Your task to perform on an android device: Go to network settings Image 0: 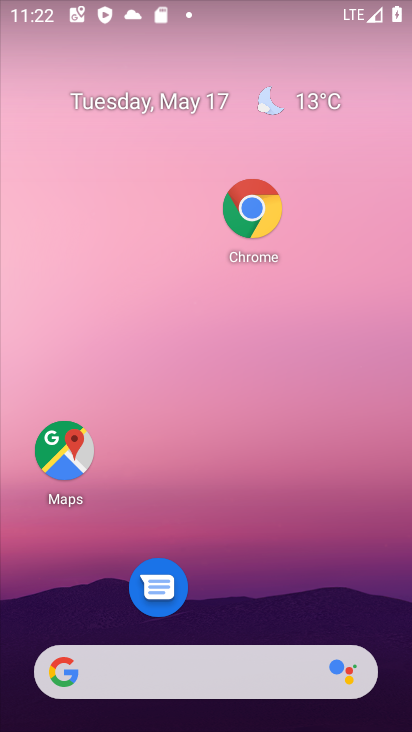
Step 0: drag from (336, 528) to (324, 152)
Your task to perform on an android device: Go to network settings Image 1: 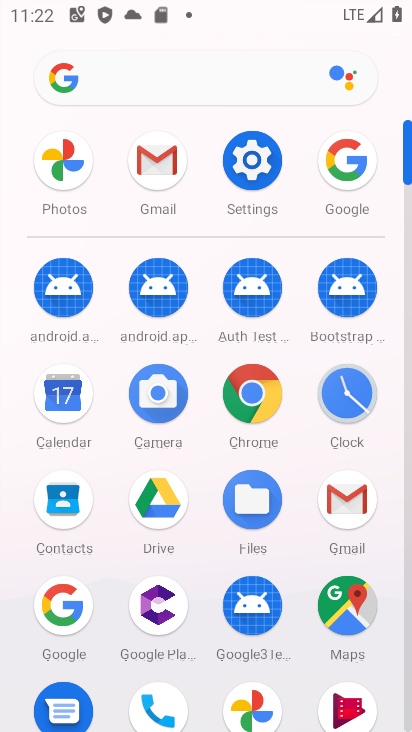
Step 1: click (262, 155)
Your task to perform on an android device: Go to network settings Image 2: 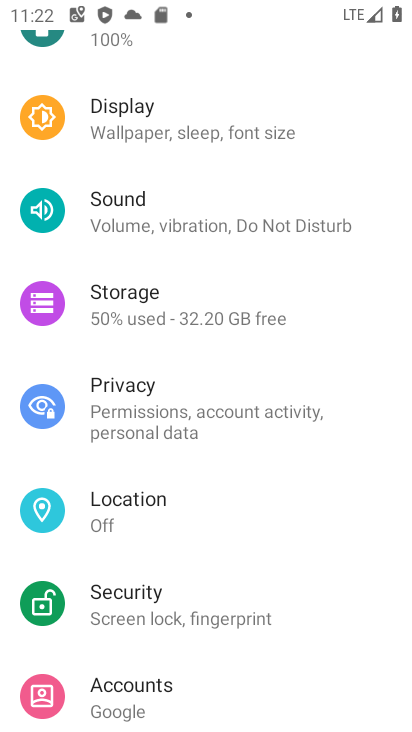
Step 2: drag from (262, 155) to (289, 571)
Your task to perform on an android device: Go to network settings Image 3: 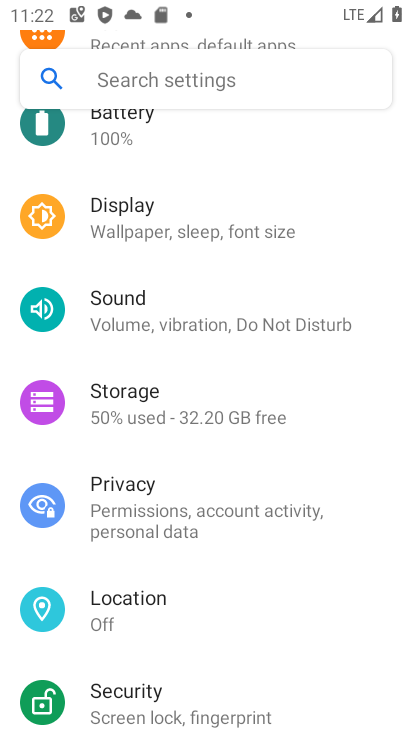
Step 3: drag from (276, 172) to (311, 610)
Your task to perform on an android device: Go to network settings Image 4: 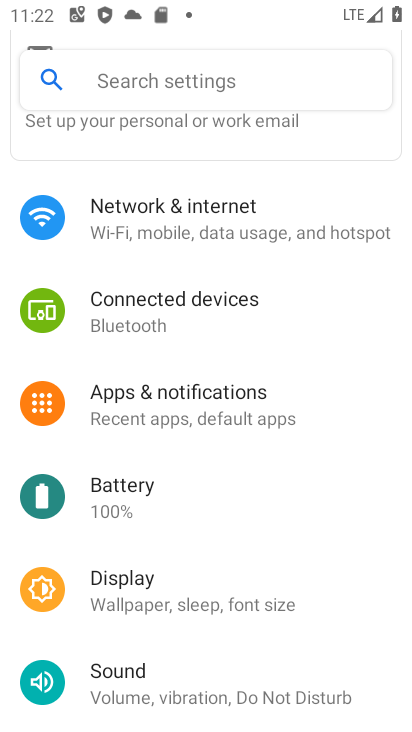
Step 4: click (244, 227)
Your task to perform on an android device: Go to network settings Image 5: 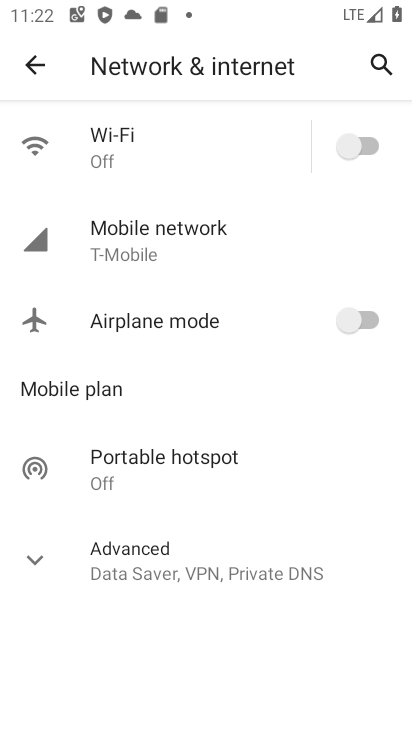
Step 5: task complete